Your task to perform on an android device: open sync settings in chrome Image 0: 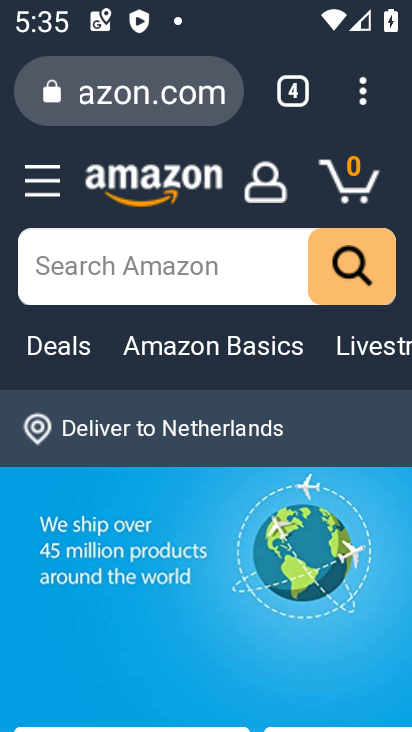
Step 0: click (361, 93)
Your task to perform on an android device: open sync settings in chrome Image 1: 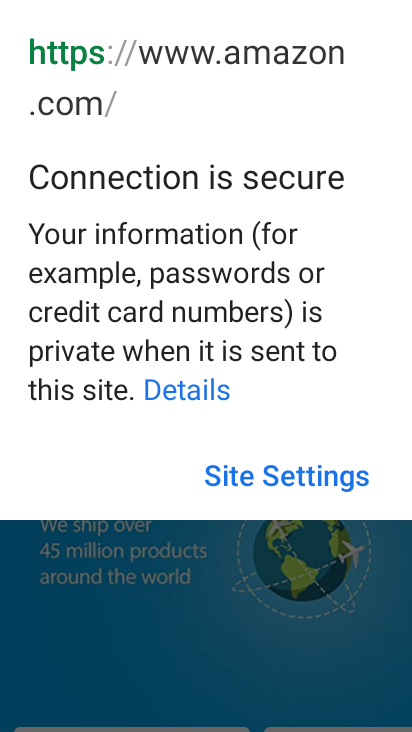
Step 1: click (226, 658)
Your task to perform on an android device: open sync settings in chrome Image 2: 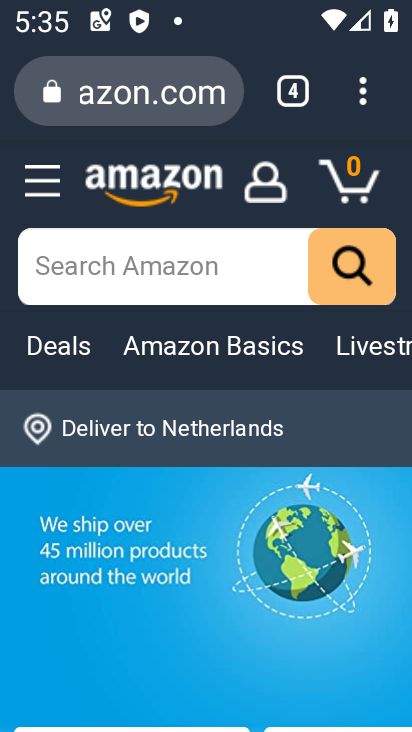
Step 2: press home button
Your task to perform on an android device: open sync settings in chrome Image 3: 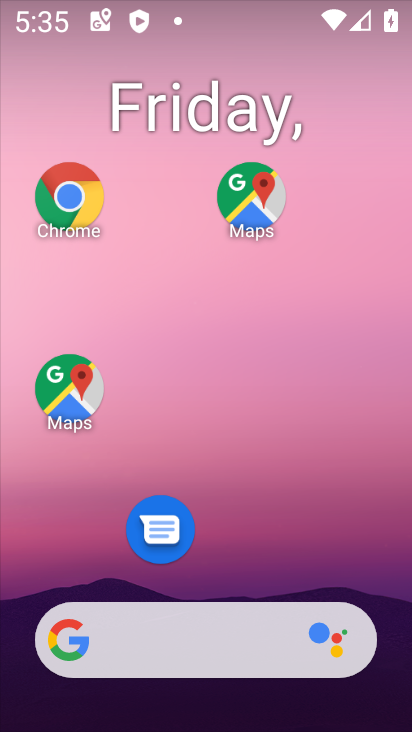
Step 3: click (64, 192)
Your task to perform on an android device: open sync settings in chrome Image 4: 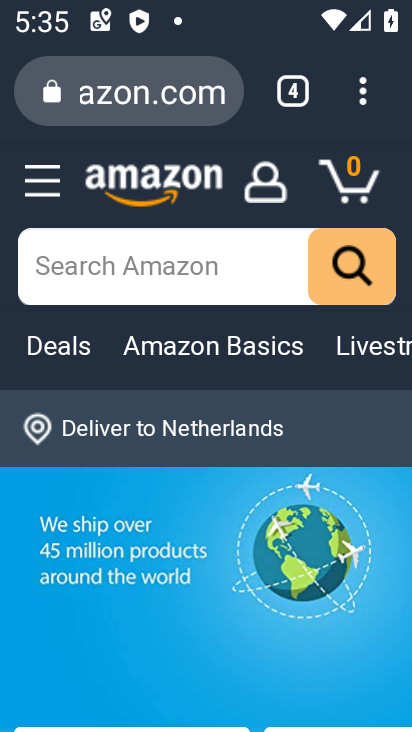
Step 4: click (362, 95)
Your task to perform on an android device: open sync settings in chrome Image 5: 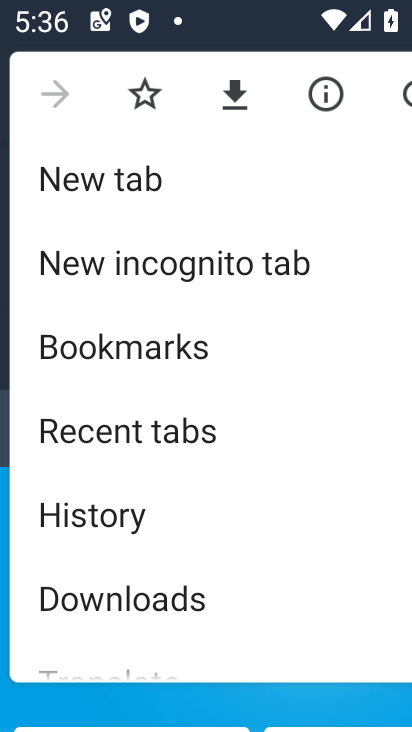
Step 5: drag from (171, 547) to (171, 240)
Your task to perform on an android device: open sync settings in chrome Image 6: 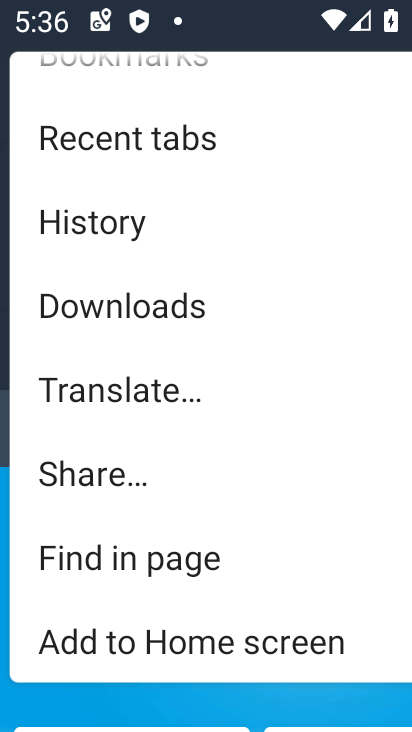
Step 6: drag from (171, 512) to (181, 275)
Your task to perform on an android device: open sync settings in chrome Image 7: 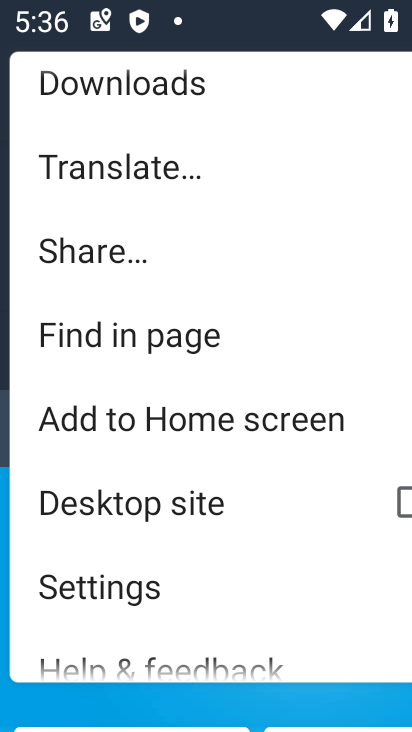
Step 7: drag from (168, 518) to (203, 284)
Your task to perform on an android device: open sync settings in chrome Image 8: 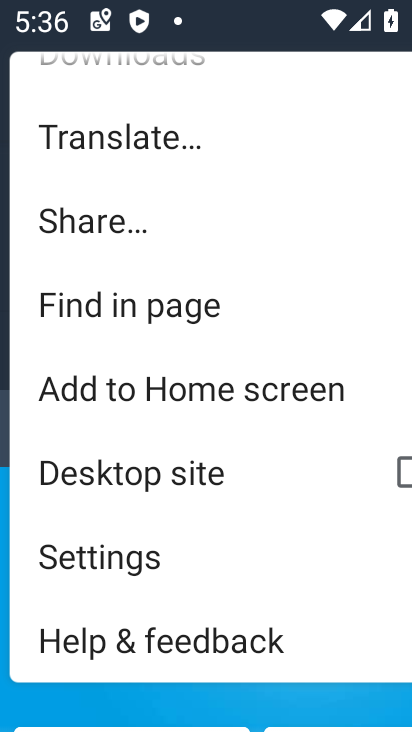
Step 8: click (142, 595)
Your task to perform on an android device: open sync settings in chrome Image 9: 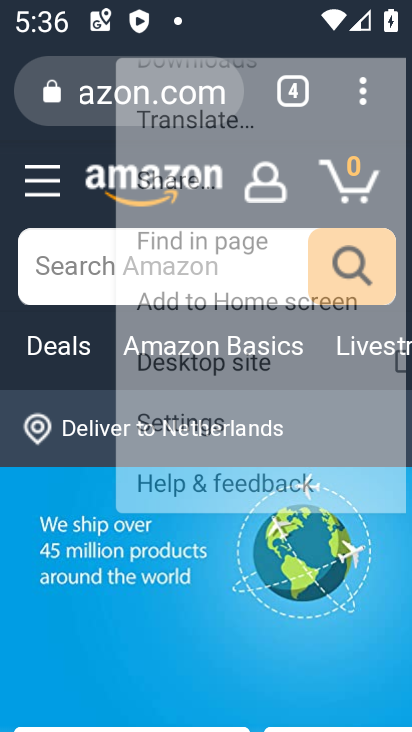
Step 9: click (142, 569)
Your task to perform on an android device: open sync settings in chrome Image 10: 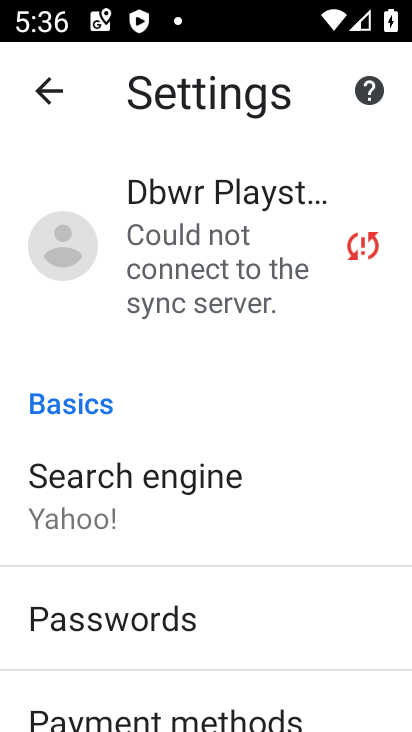
Step 10: click (215, 250)
Your task to perform on an android device: open sync settings in chrome Image 11: 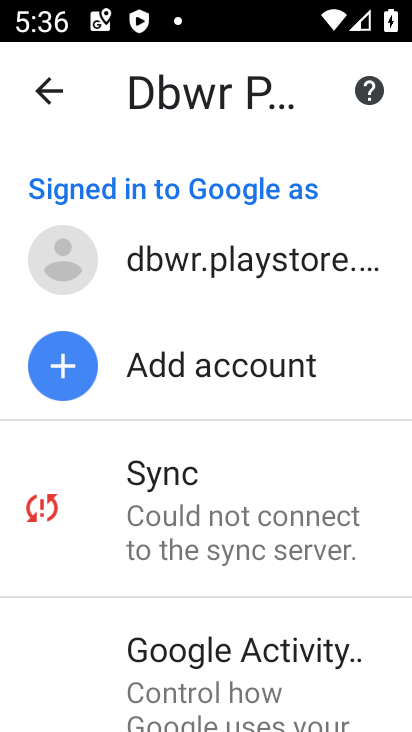
Step 11: click (187, 506)
Your task to perform on an android device: open sync settings in chrome Image 12: 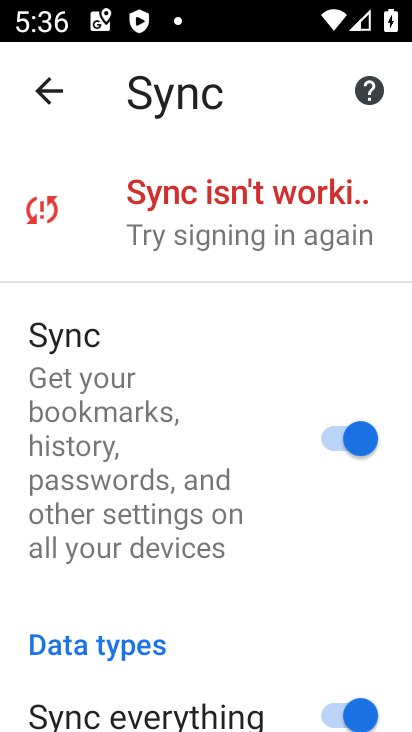
Step 12: task complete